Your task to perform on an android device: What's on my calendar today? Image 0: 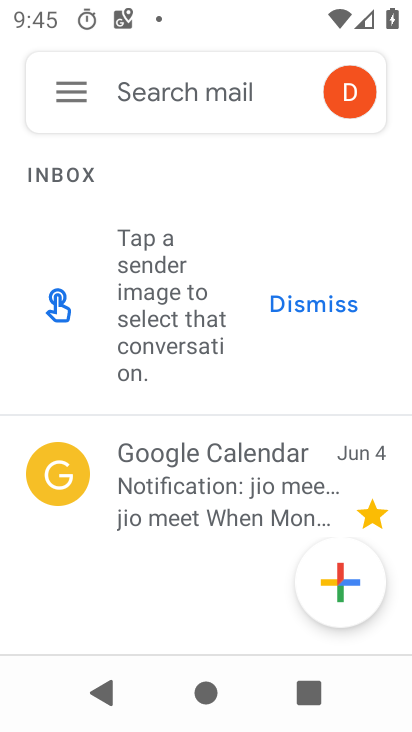
Step 0: drag from (168, 564) to (205, 208)
Your task to perform on an android device: What's on my calendar today? Image 1: 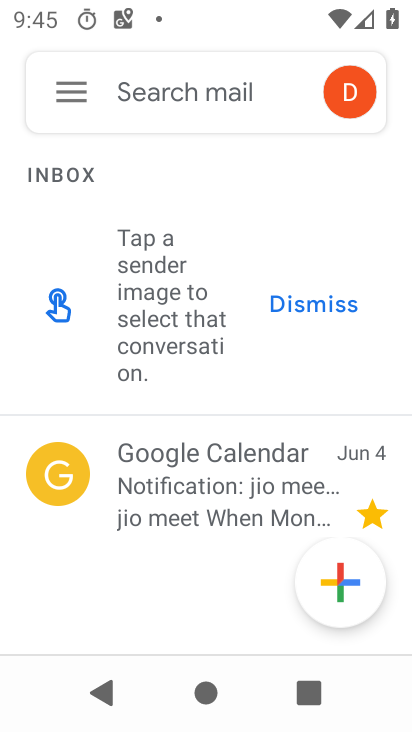
Step 1: press home button
Your task to perform on an android device: What's on my calendar today? Image 2: 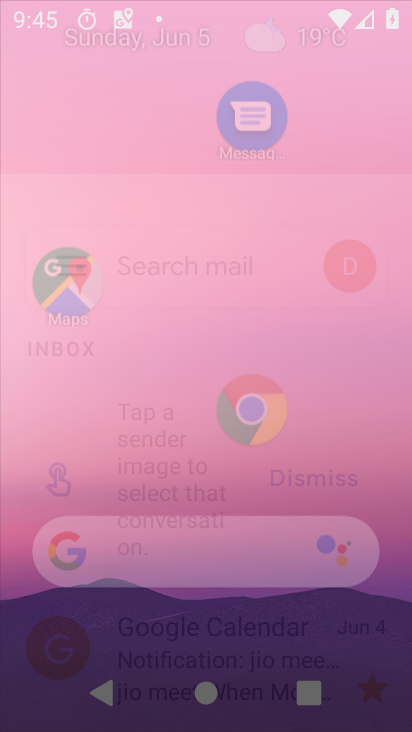
Step 2: drag from (130, 583) to (213, 4)
Your task to perform on an android device: What's on my calendar today? Image 3: 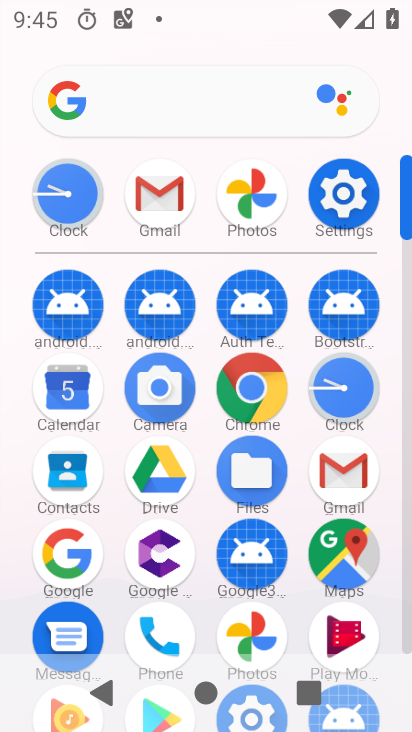
Step 3: click (58, 387)
Your task to perform on an android device: What's on my calendar today? Image 4: 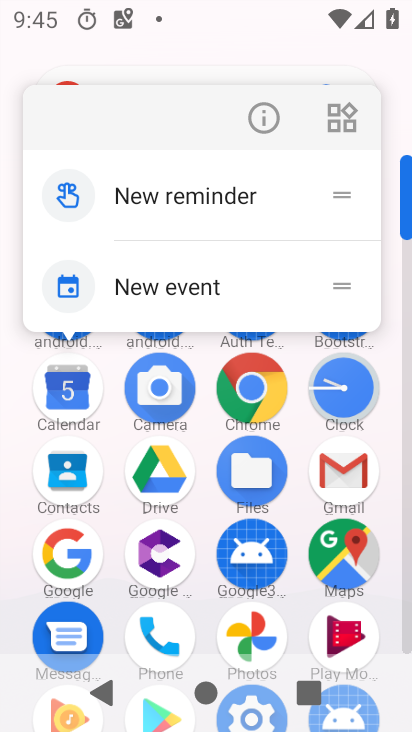
Step 4: click (266, 115)
Your task to perform on an android device: What's on my calendar today? Image 5: 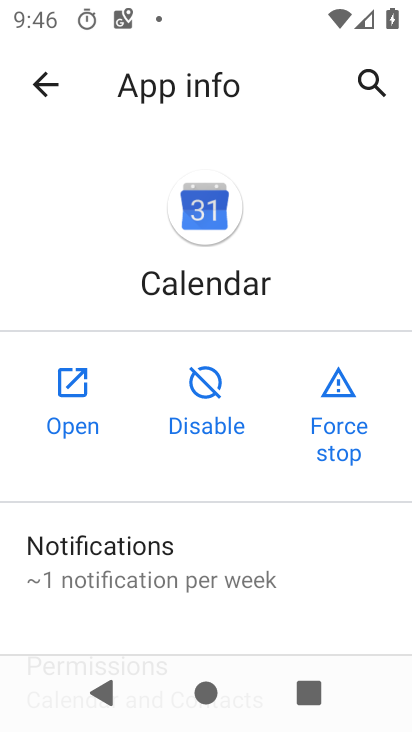
Step 5: click (69, 393)
Your task to perform on an android device: What's on my calendar today? Image 6: 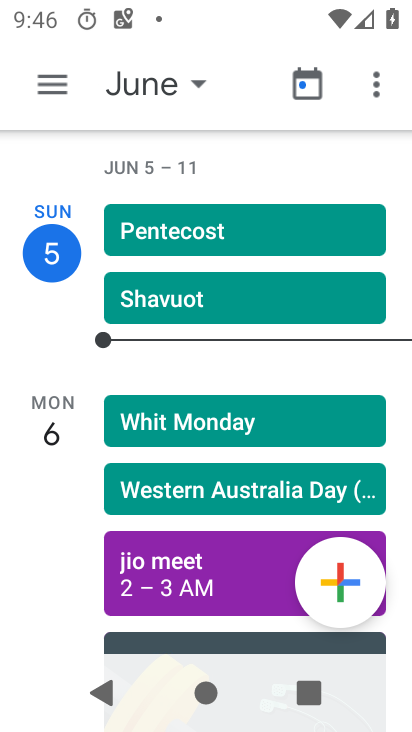
Step 6: click (162, 88)
Your task to perform on an android device: What's on my calendar today? Image 7: 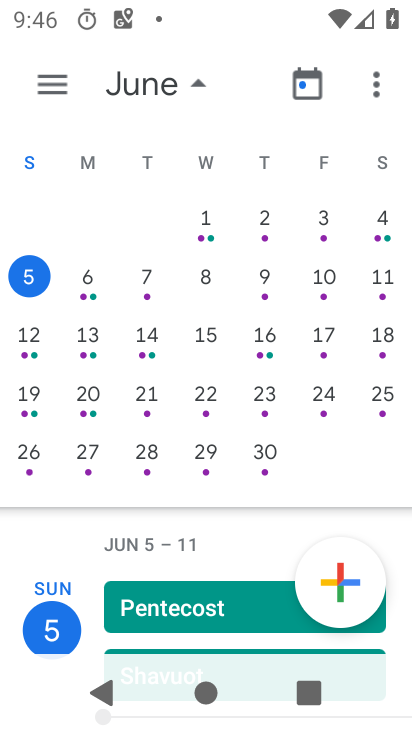
Step 7: click (37, 278)
Your task to perform on an android device: What's on my calendar today? Image 8: 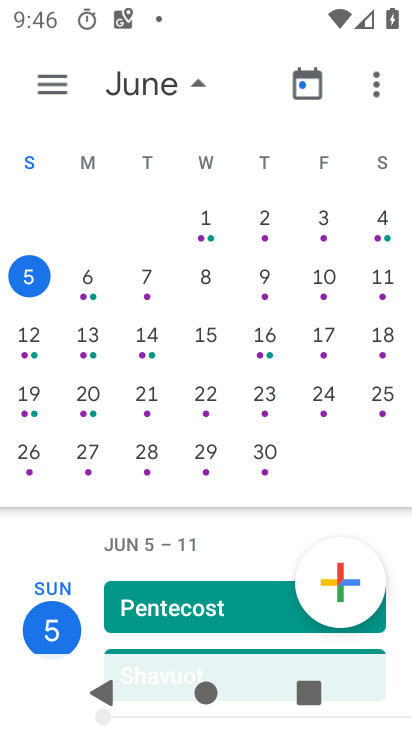
Step 8: task complete